Your task to perform on an android device: change alarm snooze length Image 0: 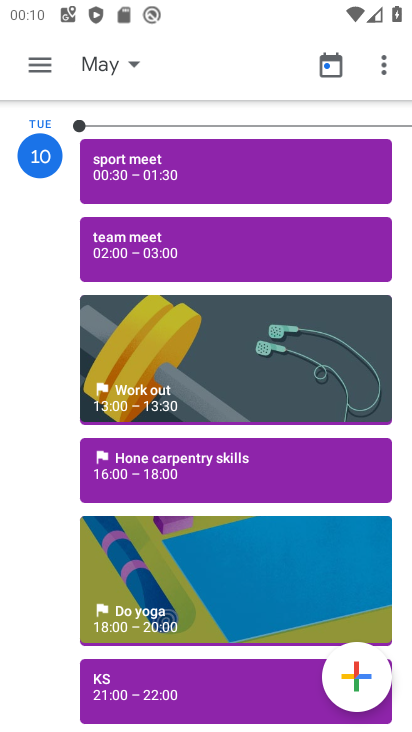
Step 0: press home button
Your task to perform on an android device: change alarm snooze length Image 1: 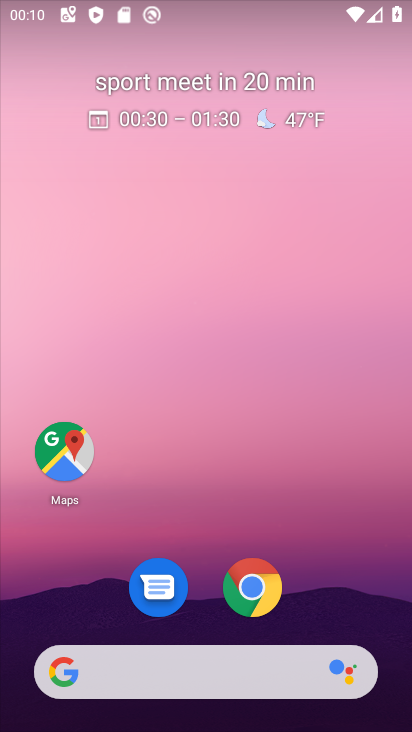
Step 1: drag from (402, 643) to (412, 159)
Your task to perform on an android device: change alarm snooze length Image 2: 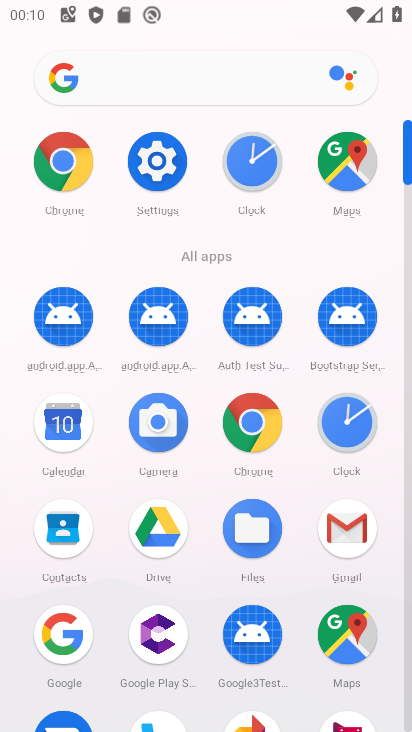
Step 2: click (341, 425)
Your task to perform on an android device: change alarm snooze length Image 3: 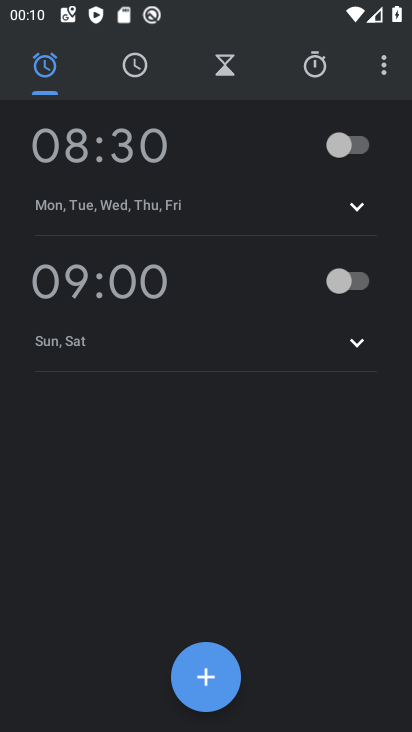
Step 3: click (380, 66)
Your task to perform on an android device: change alarm snooze length Image 4: 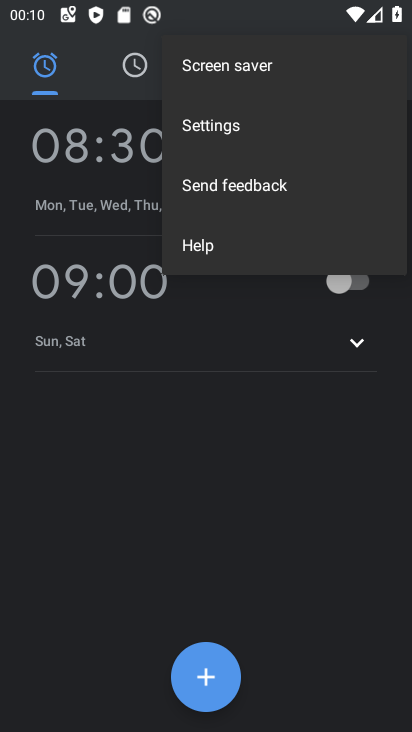
Step 4: click (209, 131)
Your task to perform on an android device: change alarm snooze length Image 5: 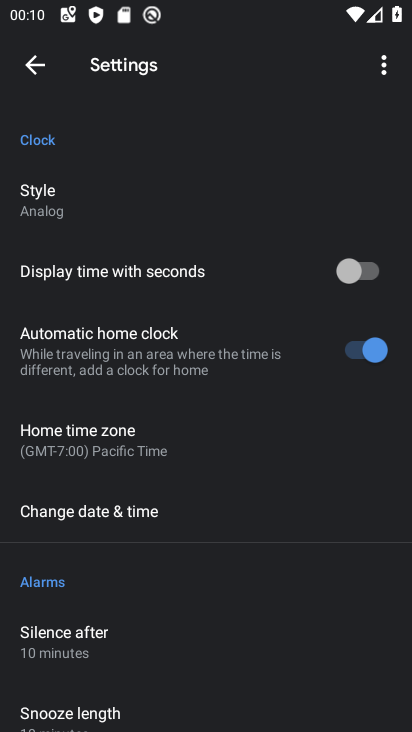
Step 5: drag from (232, 587) to (237, 349)
Your task to perform on an android device: change alarm snooze length Image 6: 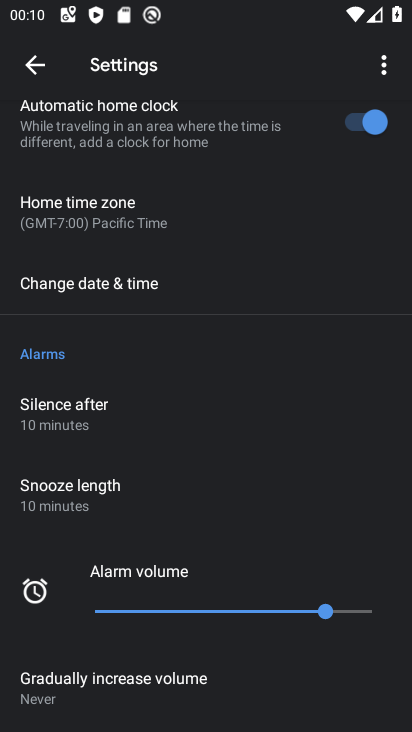
Step 6: click (78, 483)
Your task to perform on an android device: change alarm snooze length Image 7: 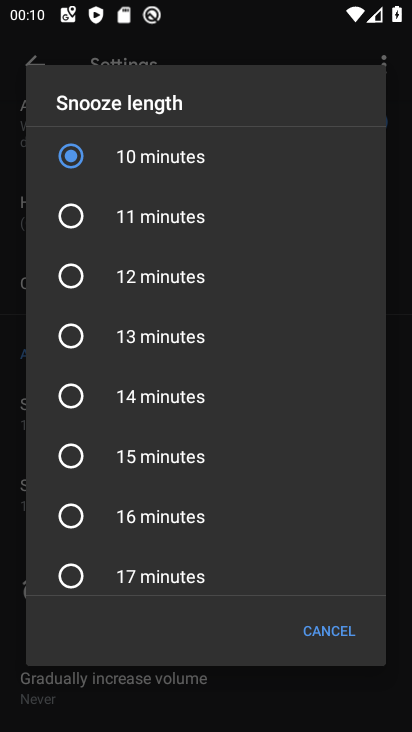
Step 7: click (72, 337)
Your task to perform on an android device: change alarm snooze length Image 8: 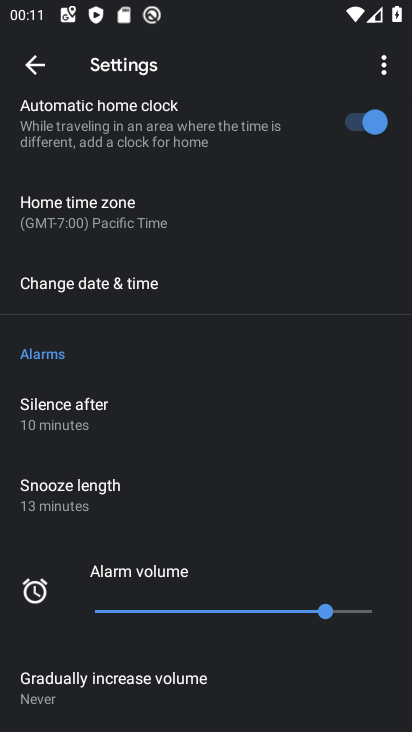
Step 8: task complete